Your task to perform on an android device: turn on priority inbox in the gmail app Image 0: 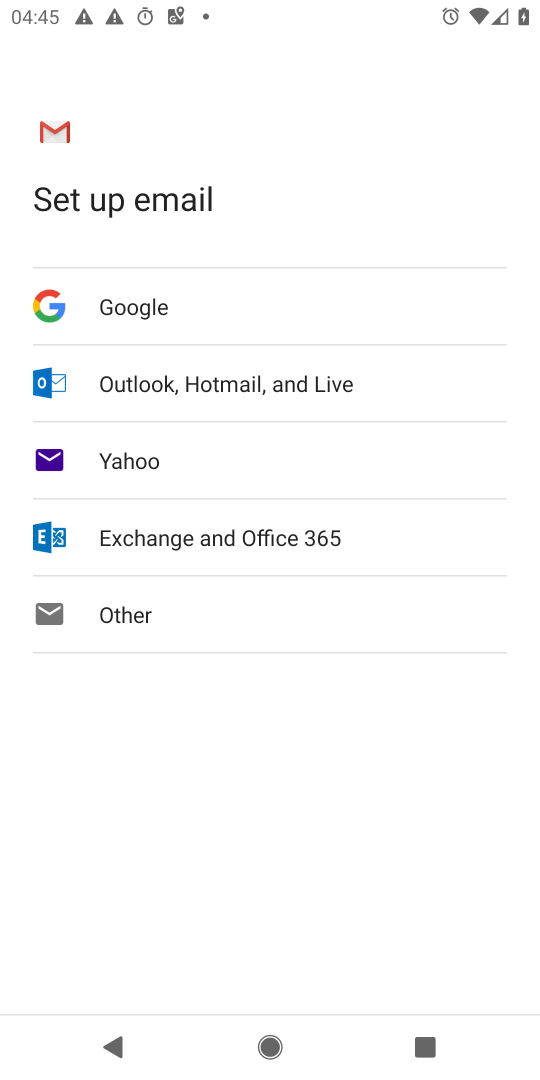
Step 0: press home button
Your task to perform on an android device: turn on priority inbox in the gmail app Image 1: 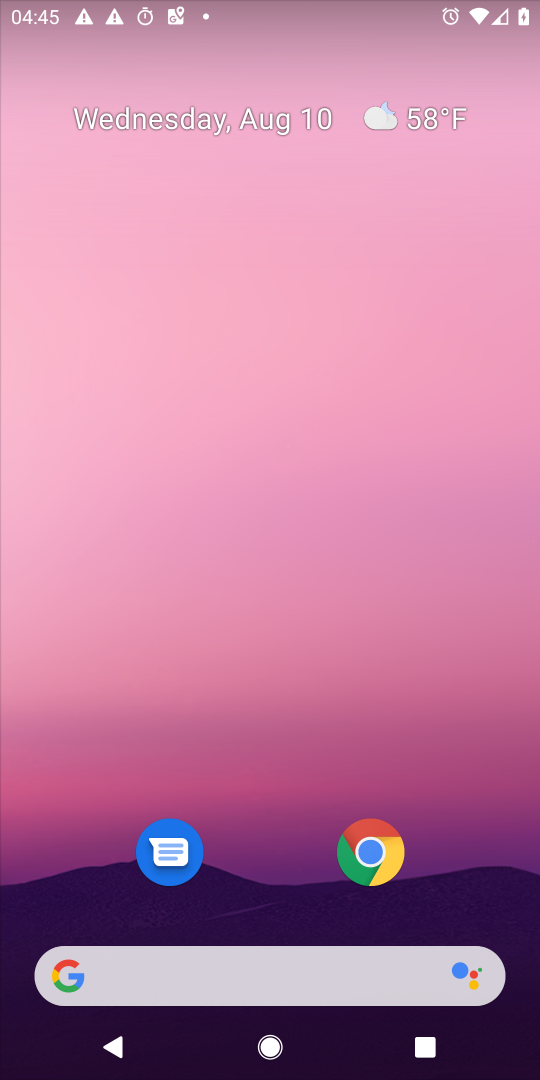
Step 1: drag from (275, 868) to (51, 194)
Your task to perform on an android device: turn on priority inbox in the gmail app Image 2: 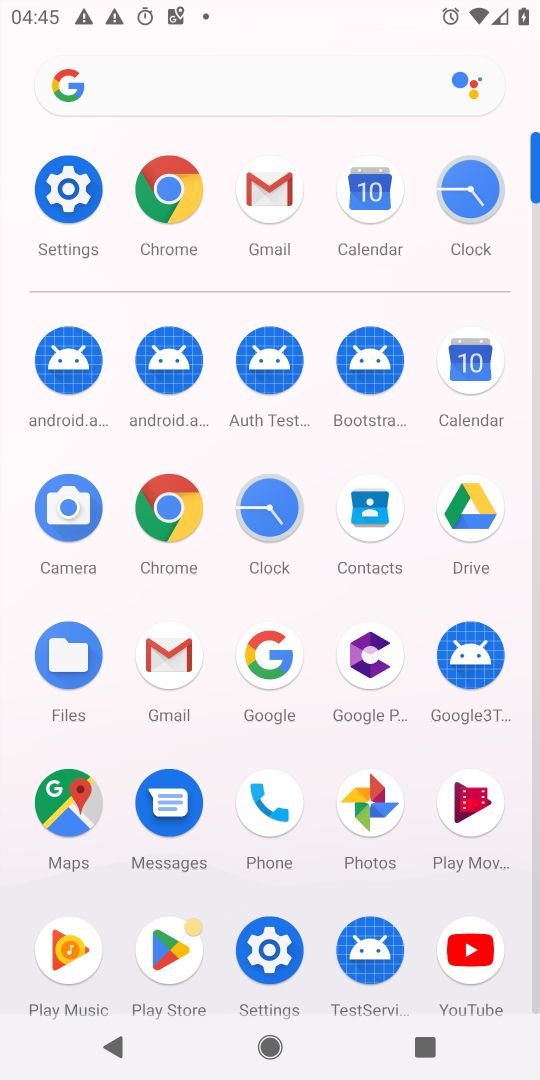
Step 2: click (173, 639)
Your task to perform on an android device: turn on priority inbox in the gmail app Image 3: 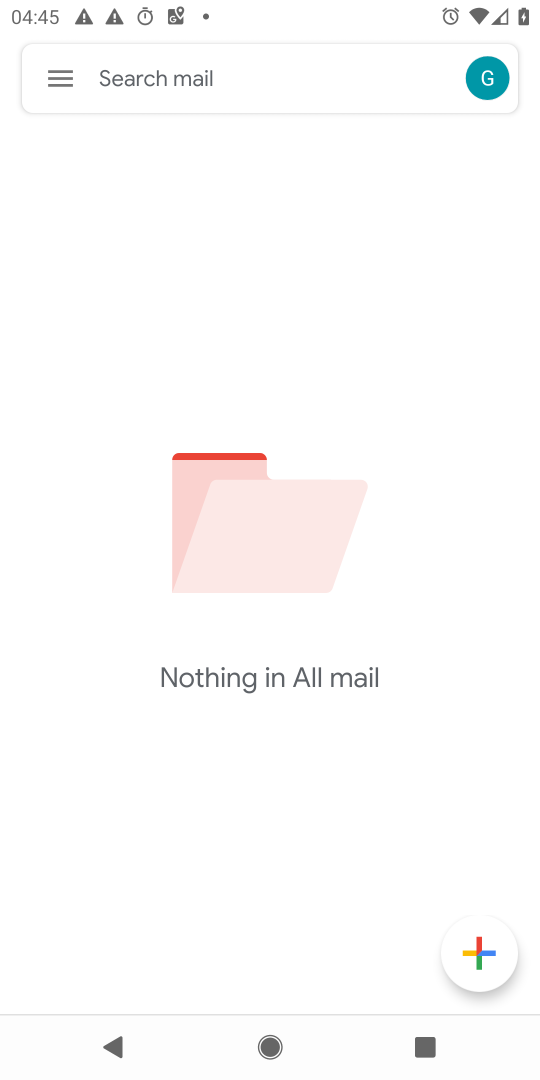
Step 3: click (49, 62)
Your task to perform on an android device: turn on priority inbox in the gmail app Image 4: 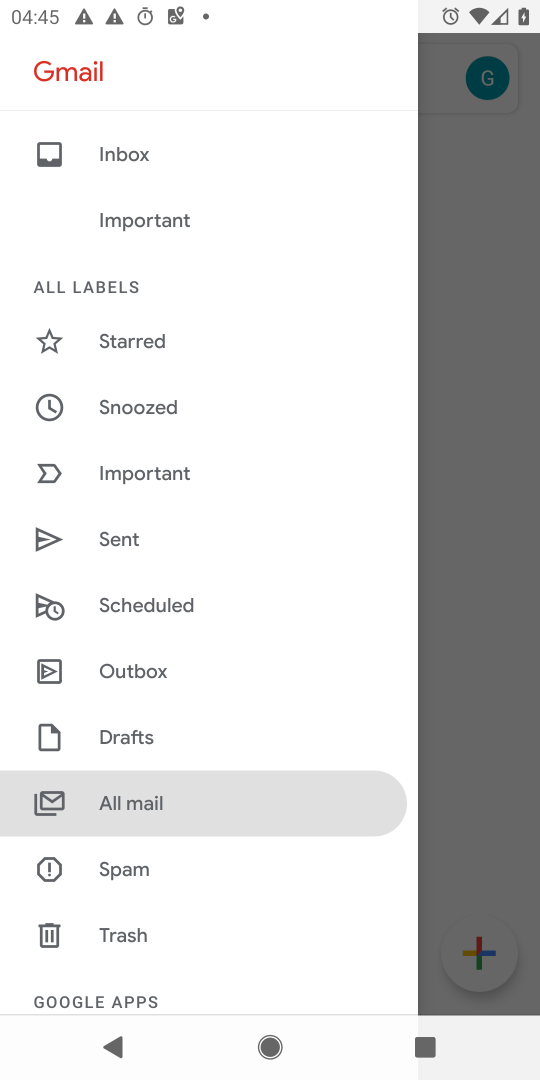
Step 4: drag from (263, 874) to (86, 120)
Your task to perform on an android device: turn on priority inbox in the gmail app Image 5: 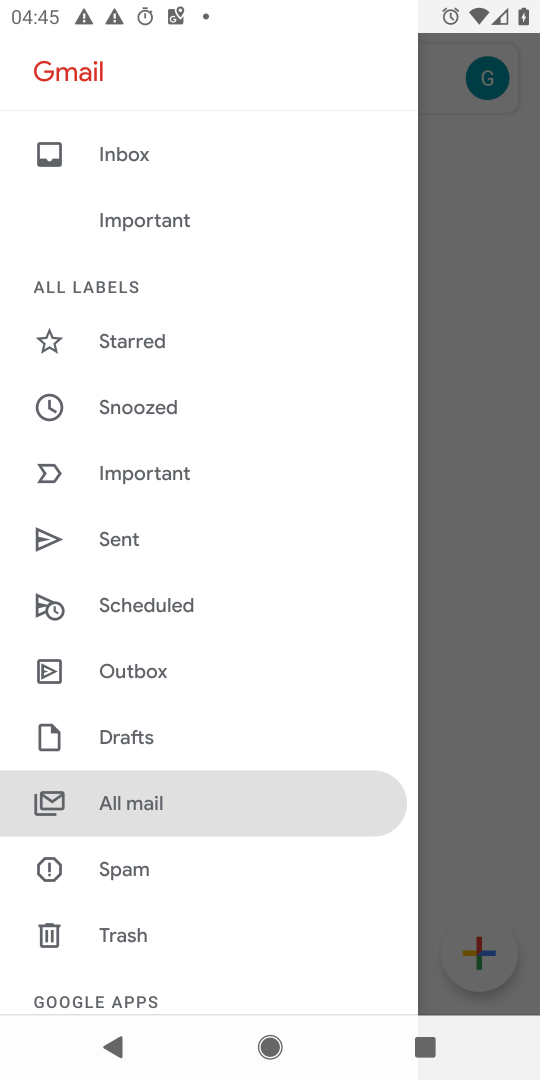
Step 5: drag from (197, 902) to (539, 423)
Your task to perform on an android device: turn on priority inbox in the gmail app Image 6: 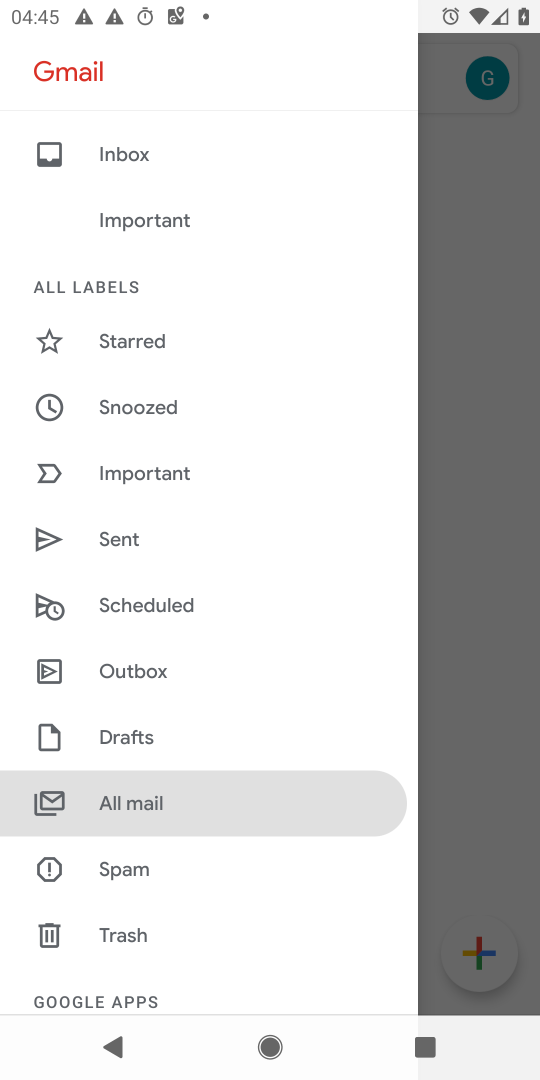
Step 6: drag from (248, 701) to (68, 50)
Your task to perform on an android device: turn on priority inbox in the gmail app Image 7: 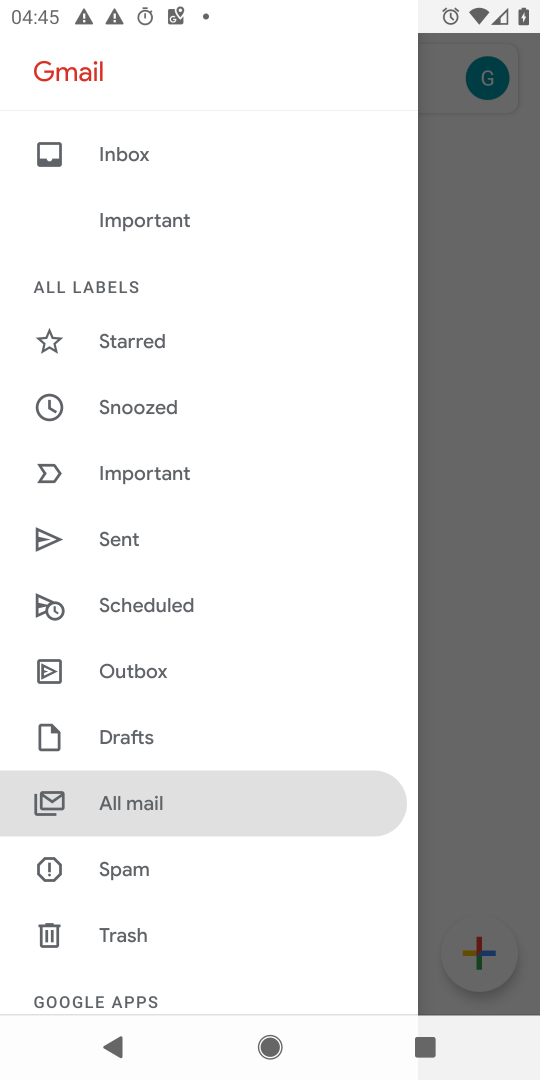
Step 7: drag from (110, 910) to (28, 68)
Your task to perform on an android device: turn on priority inbox in the gmail app Image 8: 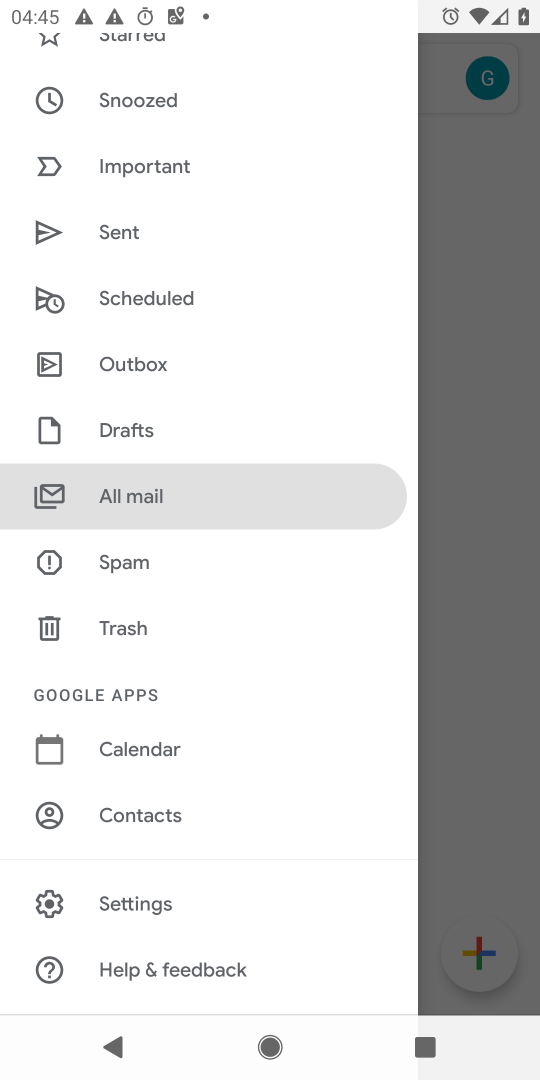
Step 8: click (113, 902)
Your task to perform on an android device: turn on priority inbox in the gmail app Image 9: 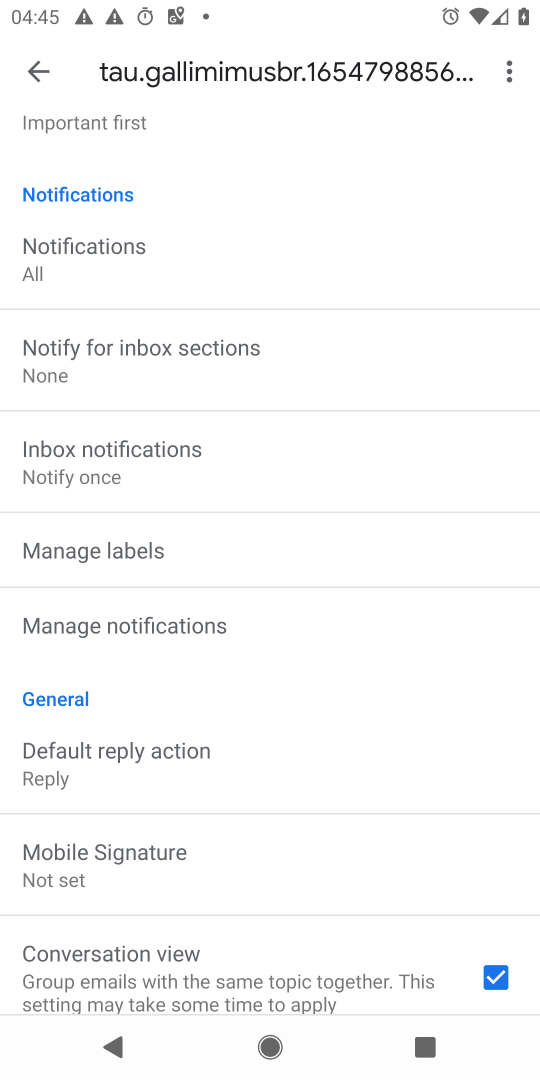
Step 9: drag from (394, 180) to (525, 669)
Your task to perform on an android device: turn on priority inbox in the gmail app Image 10: 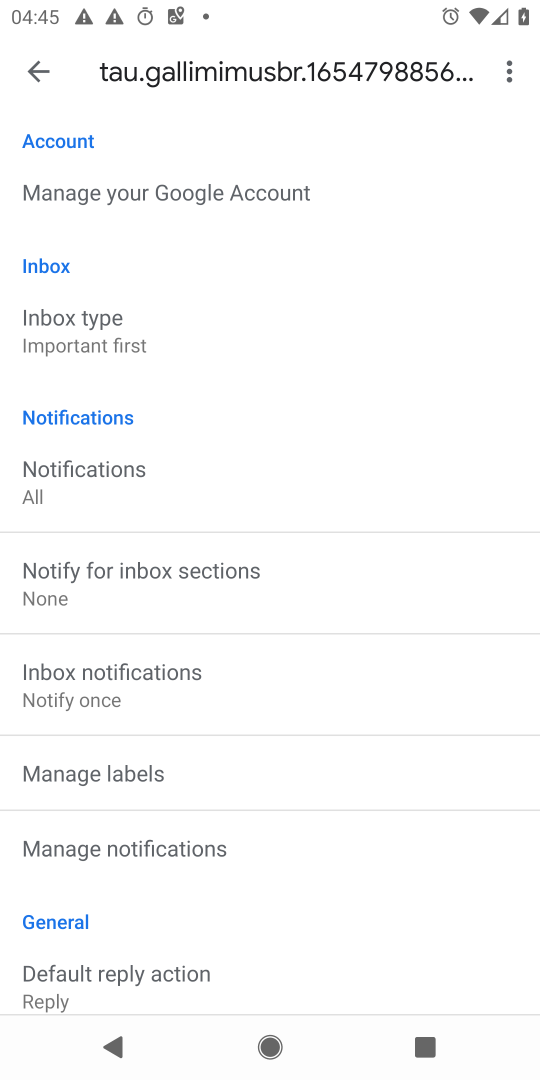
Step 10: click (49, 337)
Your task to perform on an android device: turn on priority inbox in the gmail app Image 11: 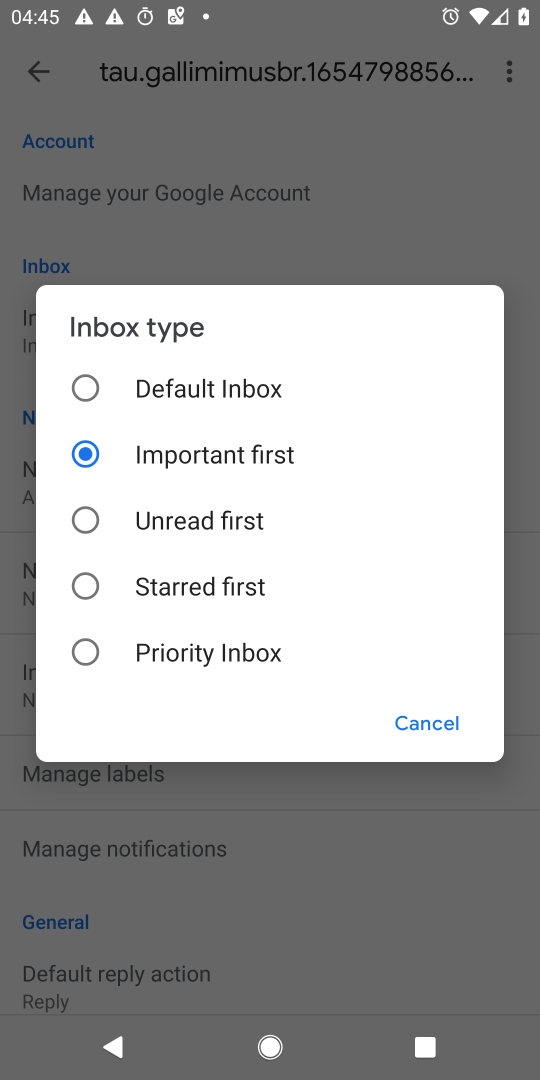
Step 11: task complete